Your task to perform on an android device: Open Chrome and go to settings Image 0: 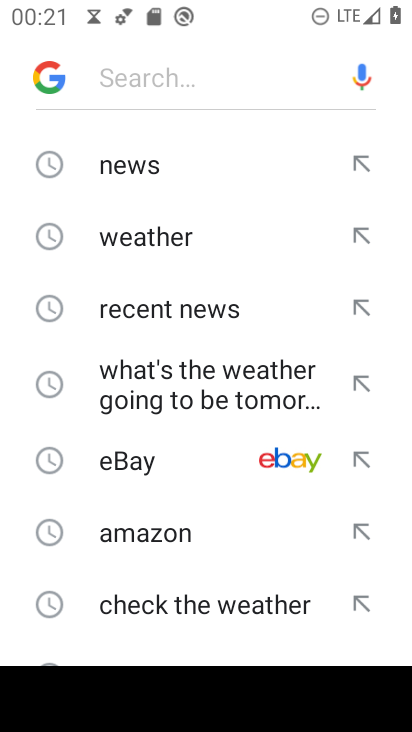
Step 0: press home button
Your task to perform on an android device: Open Chrome and go to settings Image 1: 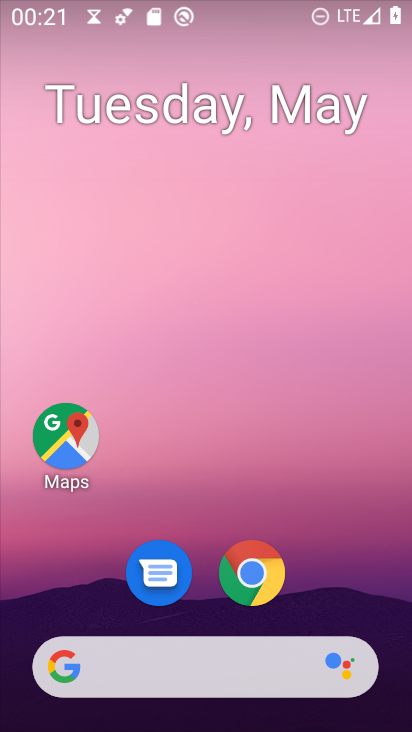
Step 1: click (238, 575)
Your task to perform on an android device: Open Chrome and go to settings Image 2: 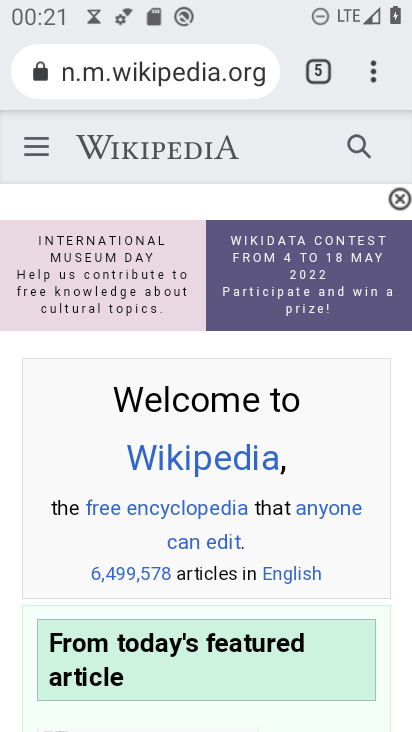
Step 2: click (378, 68)
Your task to perform on an android device: Open Chrome and go to settings Image 3: 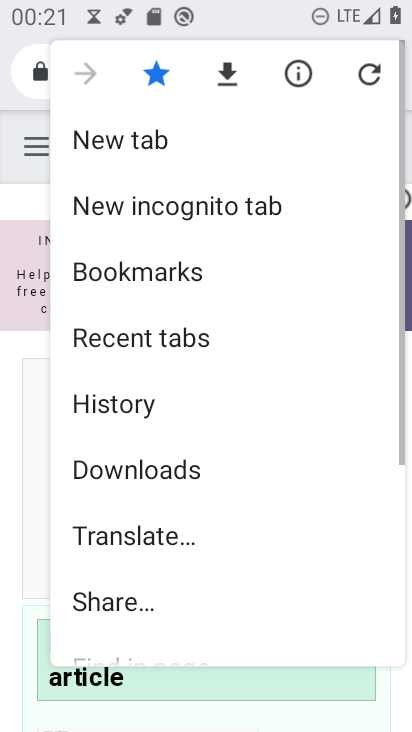
Step 3: drag from (272, 560) to (241, 71)
Your task to perform on an android device: Open Chrome and go to settings Image 4: 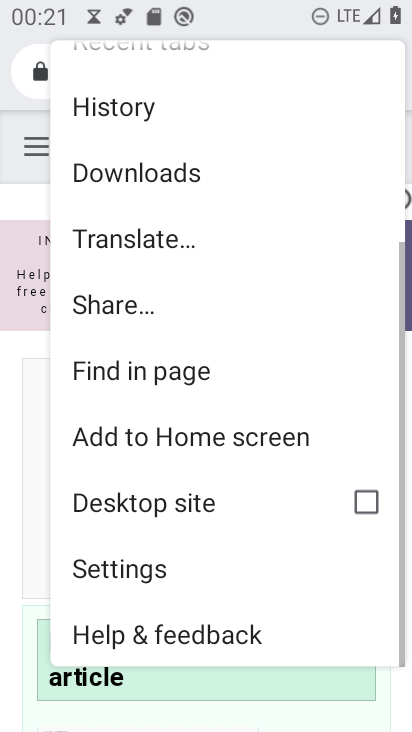
Step 4: click (151, 568)
Your task to perform on an android device: Open Chrome and go to settings Image 5: 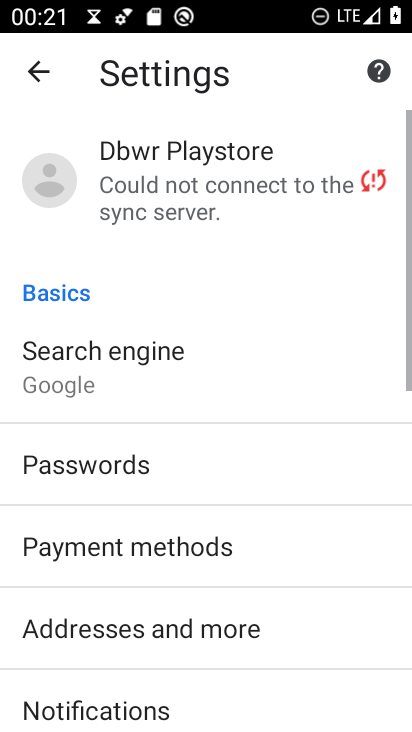
Step 5: task complete